Your task to perform on an android device: turn on the 24-hour format for clock Image 0: 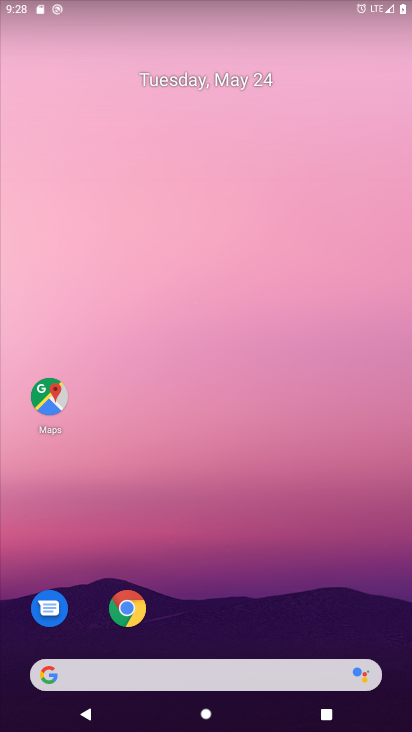
Step 0: drag from (211, 580) to (366, 4)
Your task to perform on an android device: turn on the 24-hour format for clock Image 1: 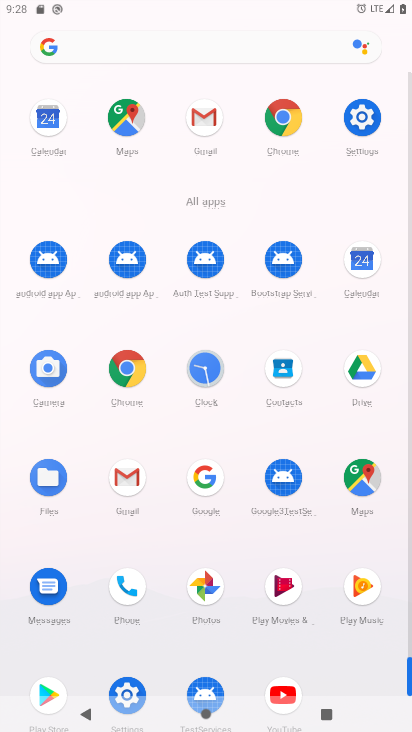
Step 1: click (362, 125)
Your task to perform on an android device: turn on the 24-hour format for clock Image 2: 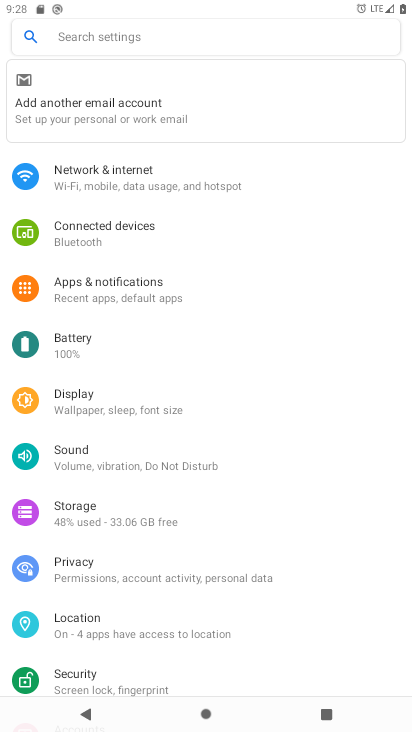
Step 2: drag from (98, 639) to (136, 201)
Your task to perform on an android device: turn on the 24-hour format for clock Image 3: 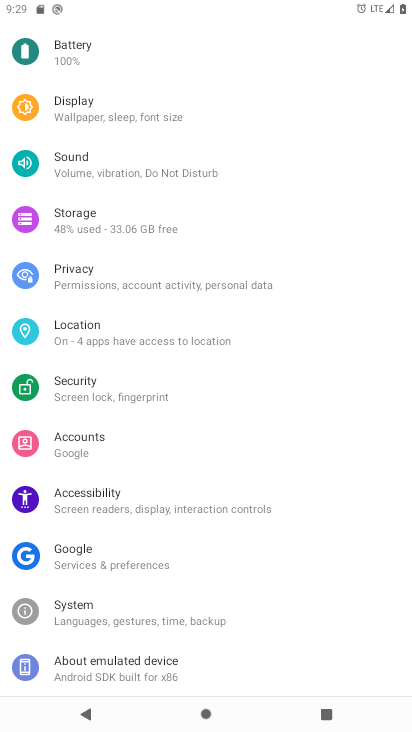
Step 3: click (135, 616)
Your task to perform on an android device: turn on the 24-hour format for clock Image 4: 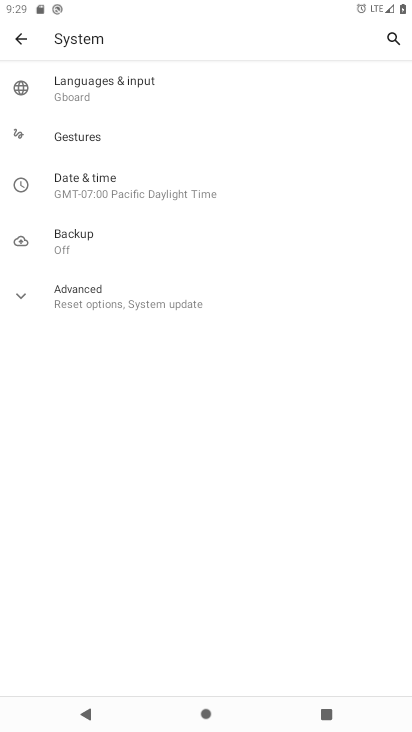
Step 4: click (131, 185)
Your task to perform on an android device: turn on the 24-hour format for clock Image 5: 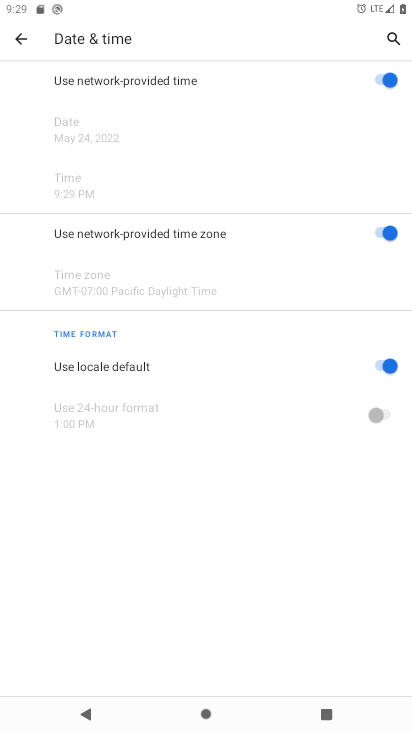
Step 5: click (372, 362)
Your task to perform on an android device: turn on the 24-hour format for clock Image 6: 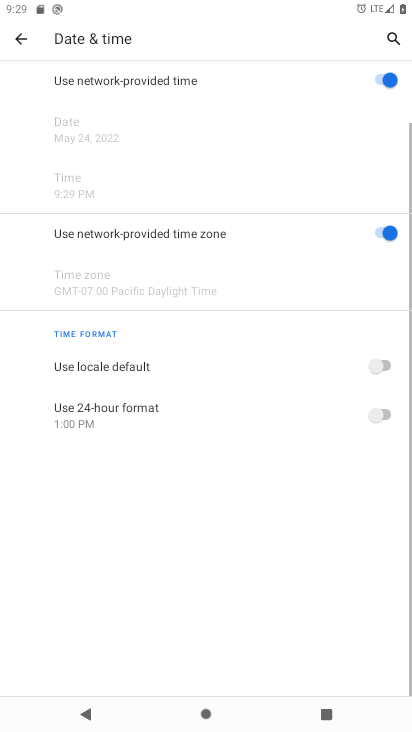
Step 6: click (387, 415)
Your task to perform on an android device: turn on the 24-hour format for clock Image 7: 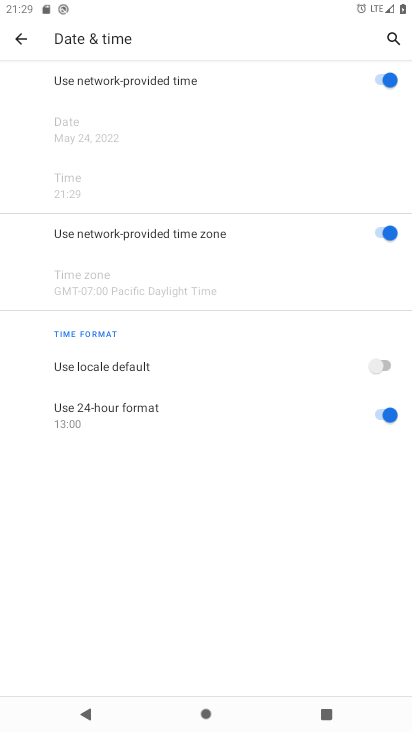
Step 7: task complete